Your task to perform on an android device: Play the last video I watched on Youtube Image 0: 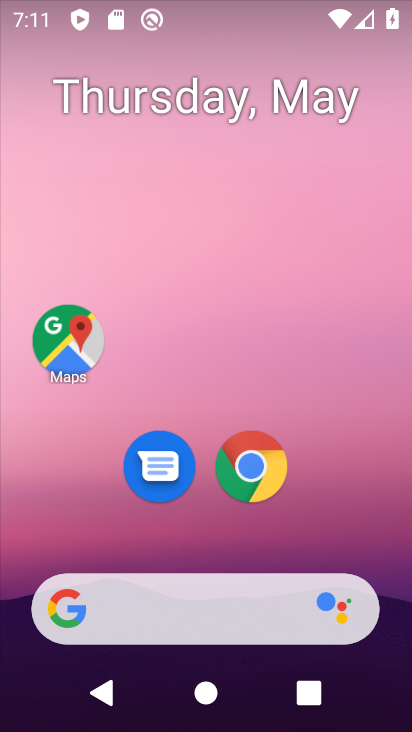
Step 0: drag from (349, 509) to (279, 70)
Your task to perform on an android device: Play the last video I watched on Youtube Image 1: 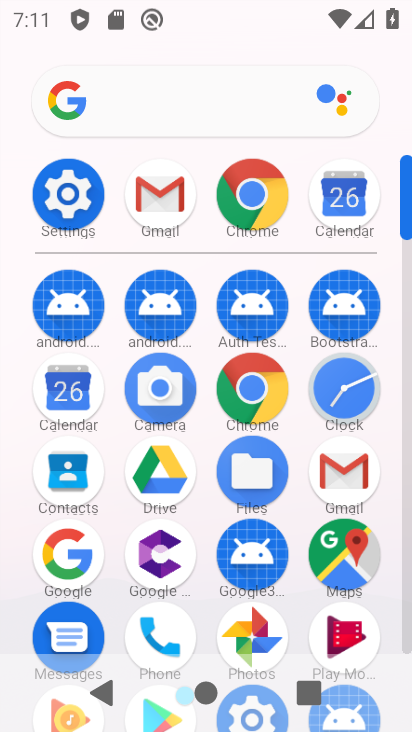
Step 1: drag from (215, 548) to (168, 153)
Your task to perform on an android device: Play the last video I watched on Youtube Image 2: 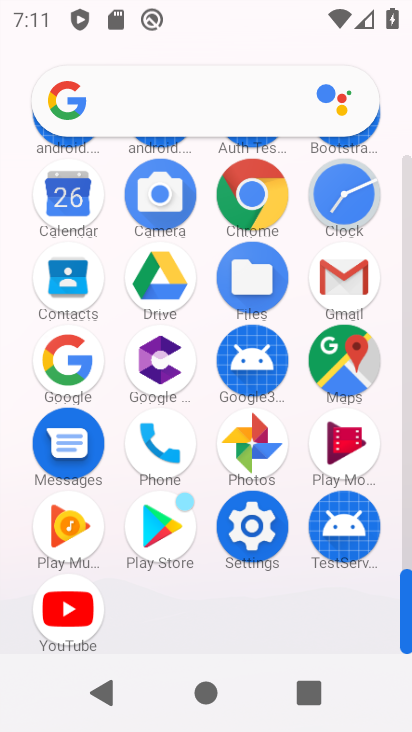
Step 2: click (71, 610)
Your task to perform on an android device: Play the last video I watched on Youtube Image 3: 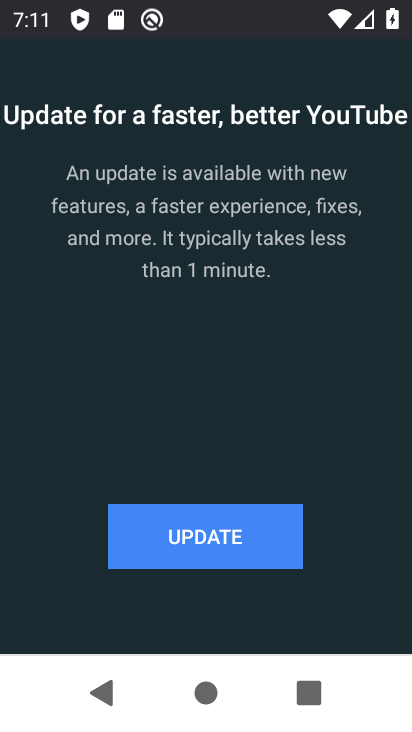
Step 3: click (217, 540)
Your task to perform on an android device: Play the last video I watched on Youtube Image 4: 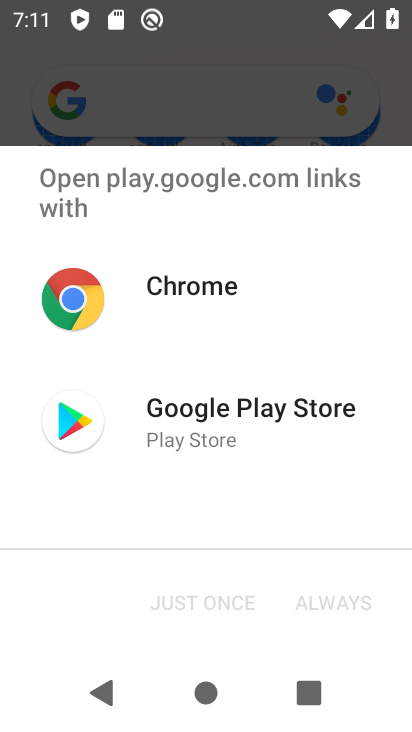
Step 4: click (203, 406)
Your task to perform on an android device: Play the last video I watched on Youtube Image 5: 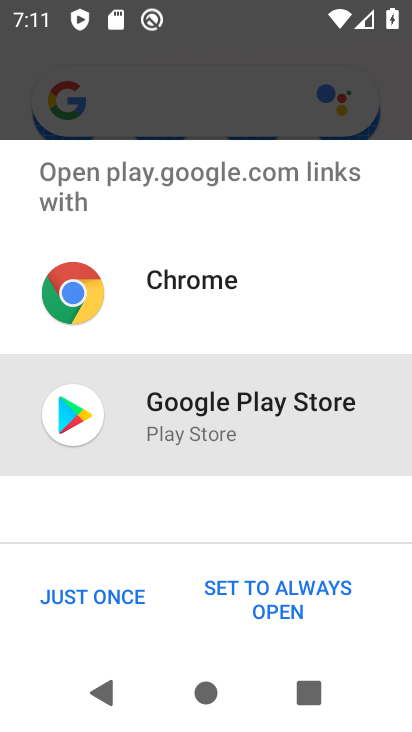
Step 5: click (101, 597)
Your task to perform on an android device: Play the last video I watched on Youtube Image 6: 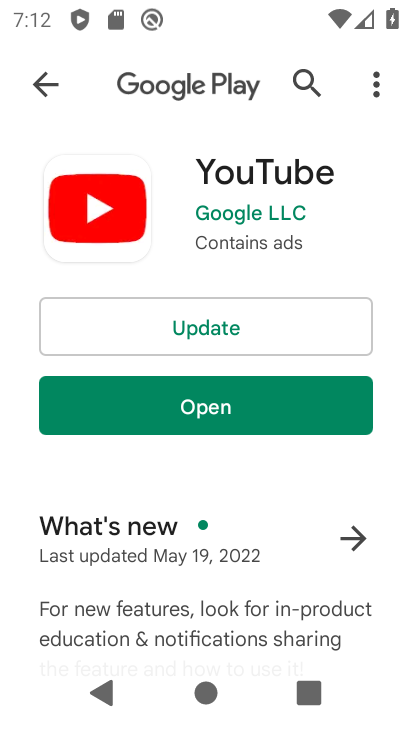
Step 6: click (210, 317)
Your task to perform on an android device: Play the last video I watched on Youtube Image 7: 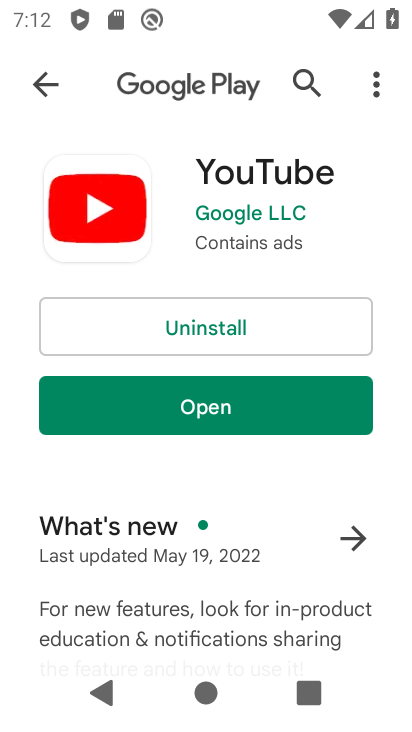
Step 7: click (202, 405)
Your task to perform on an android device: Play the last video I watched on Youtube Image 8: 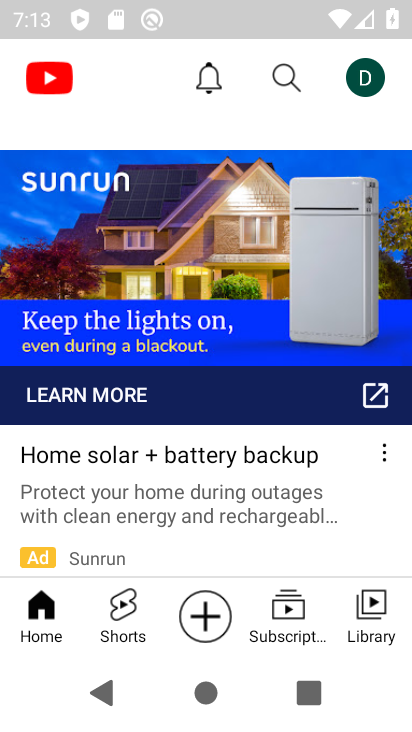
Step 8: click (372, 619)
Your task to perform on an android device: Play the last video I watched on Youtube Image 9: 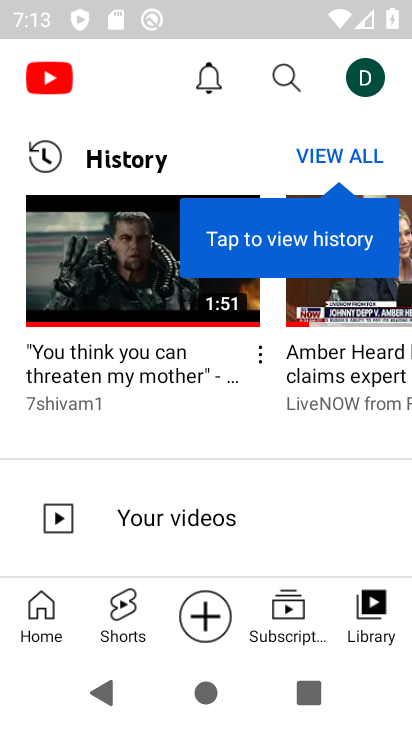
Step 9: click (94, 272)
Your task to perform on an android device: Play the last video I watched on Youtube Image 10: 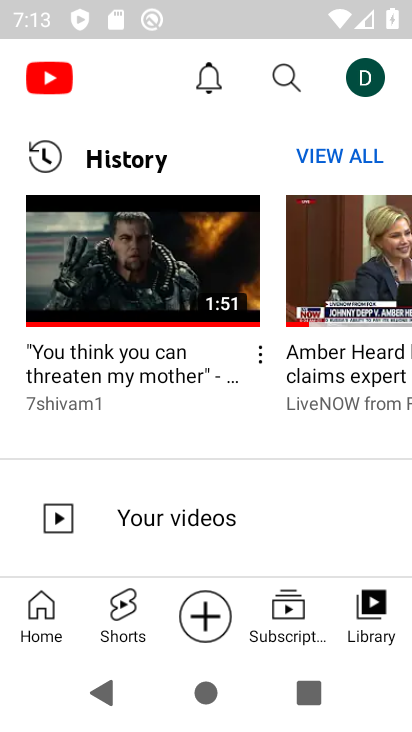
Step 10: click (125, 272)
Your task to perform on an android device: Play the last video I watched on Youtube Image 11: 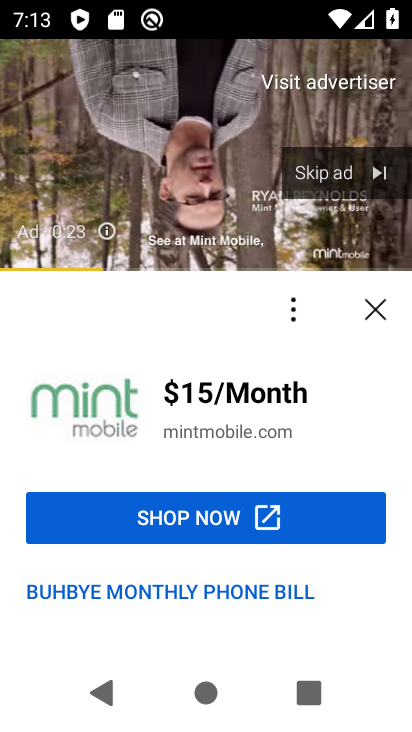
Step 11: task complete